Your task to perform on an android device: change your default location settings in chrome Image 0: 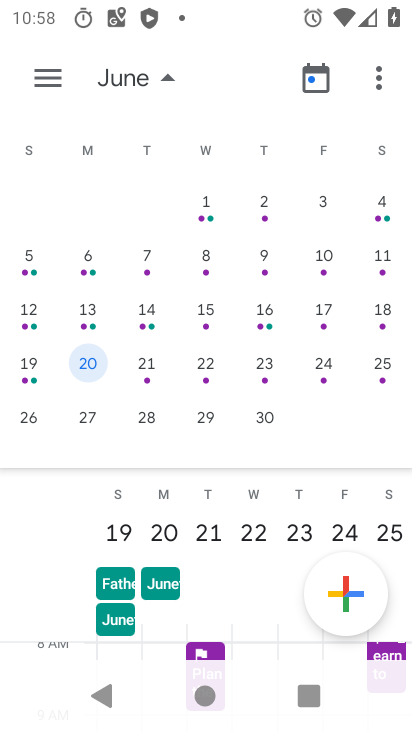
Step 0: press home button
Your task to perform on an android device: change your default location settings in chrome Image 1: 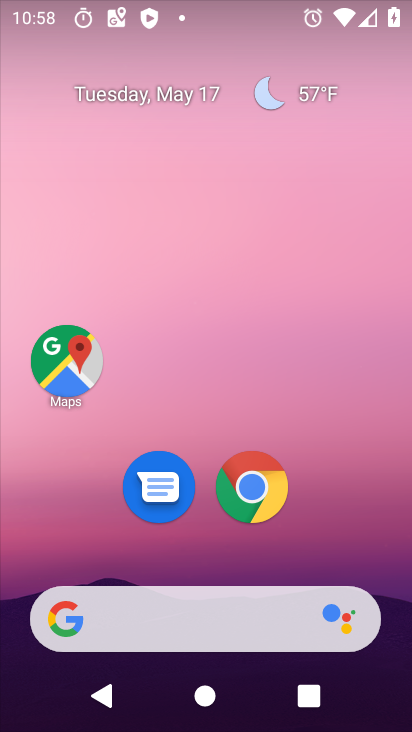
Step 1: click (253, 483)
Your task to perform on an android device: change your default location settings in chrome Image 2: 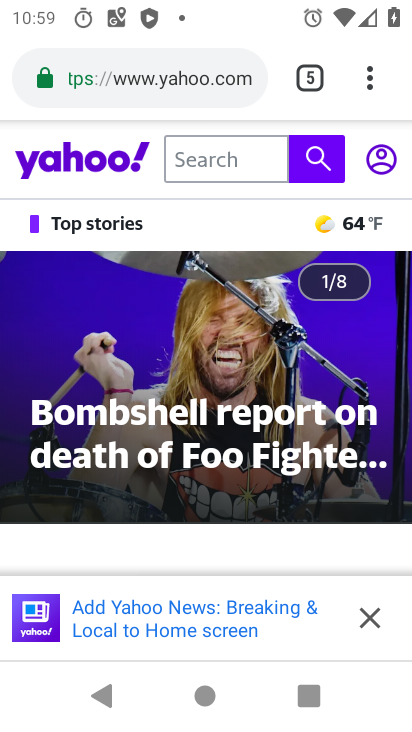
Step 2: click (369, 84)
Your task to perform on an android device: change your default location settings in chrome Image 3: 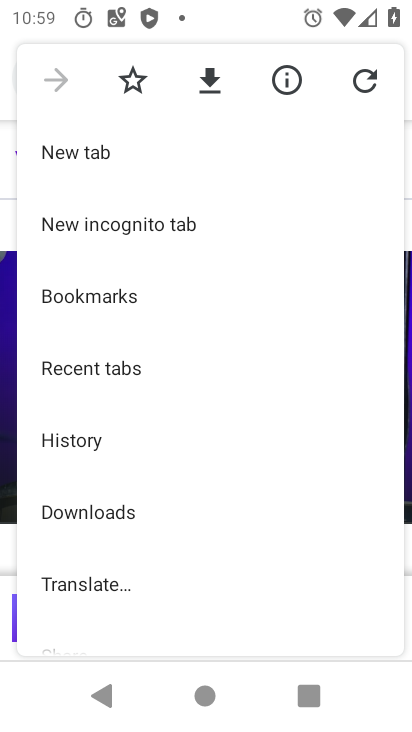
Step 3: drag from (126, 601) to (139, 201)
Your task to perform on an android device: change your default location settings in chrome Image 4: 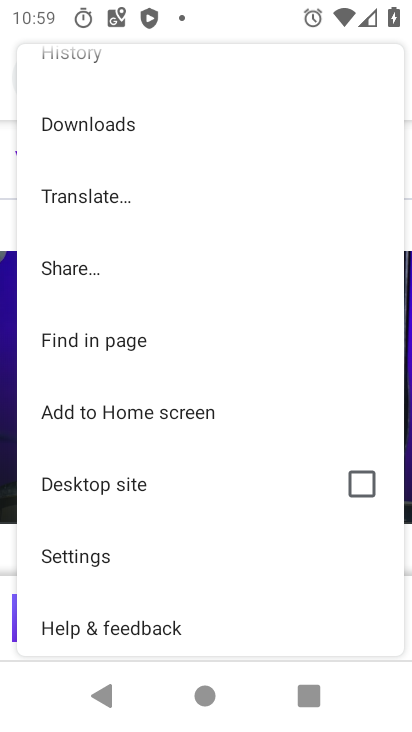
Step 4: click (75, 552)
Your task to perform on an android device: change your default location settings in chrome Image 5: 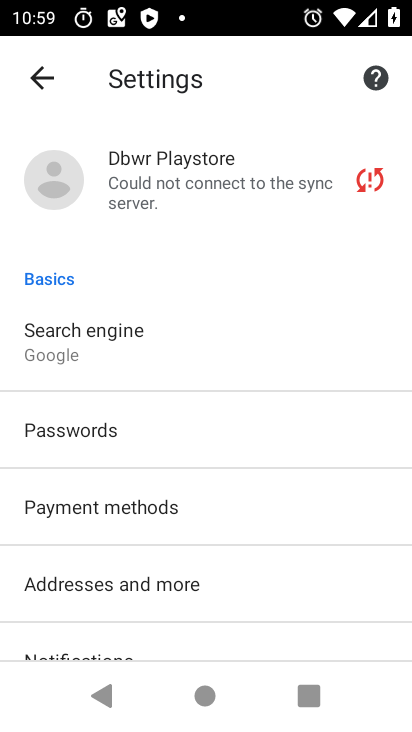
Step 5: drag from (82, 631) to (141, 193)
Your task to perform on an android device: change your default location settings in chrome Image 6: 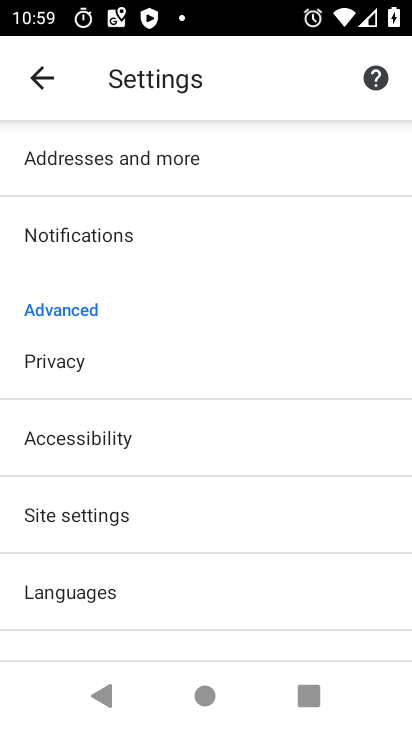
Step 6: drag from (115, 615) to (123, 450)
Your task to perform on an android device: change your default location settings in chrome Image 7: 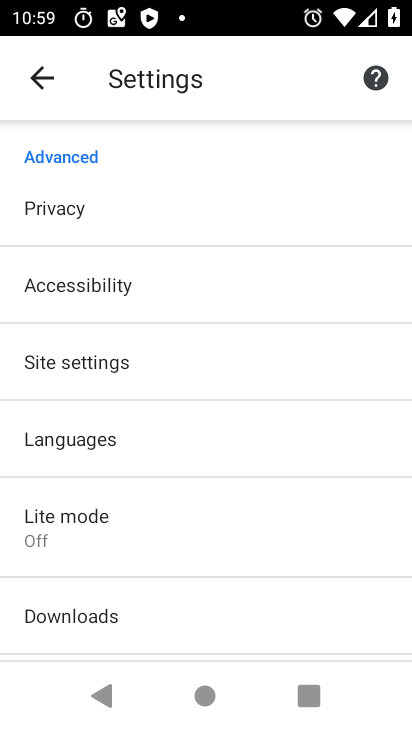
Step 7: click (83, 357)
Your task to perform on an android device: change your default location settings in chrome Image 8: 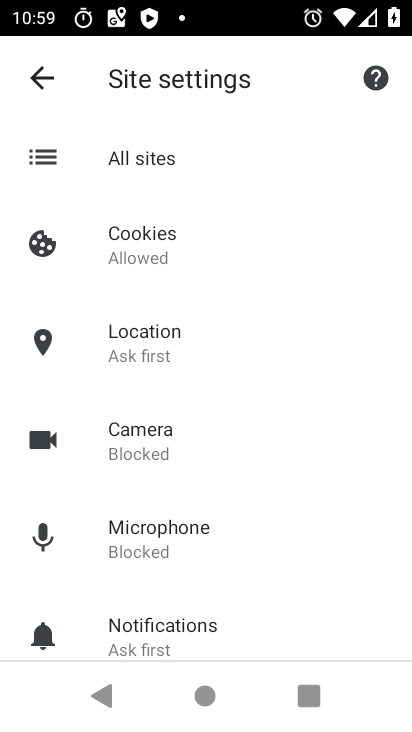
Step 8: click (151, 345)
Your task to perform on an android device: change your default location settings in chrome Image 9: 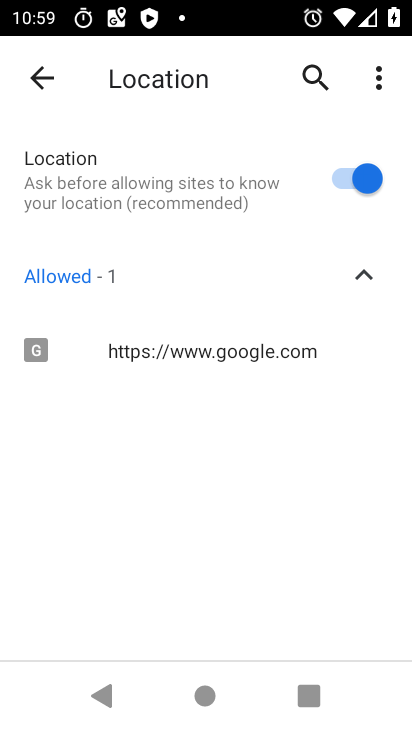
Step 9: click (352, 177)
Your task to perform on an android device: change your default location settings in chrome Image 10: 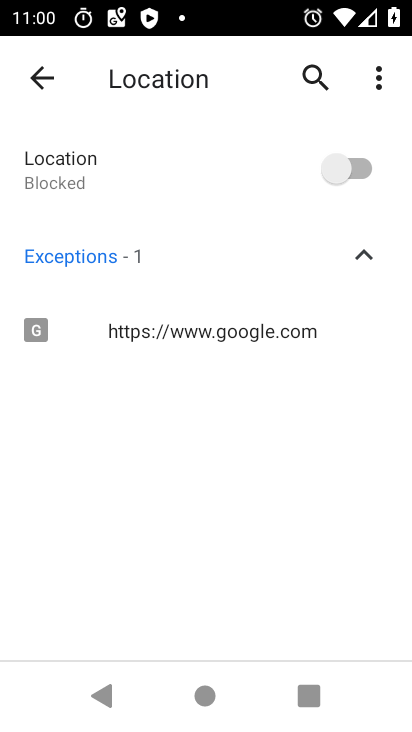
Step 10: task complete